Your task to perform on an android device: Empty the shopping cart on ebay.com. Add duracell triple a to the cart on ebay.com Image 0: 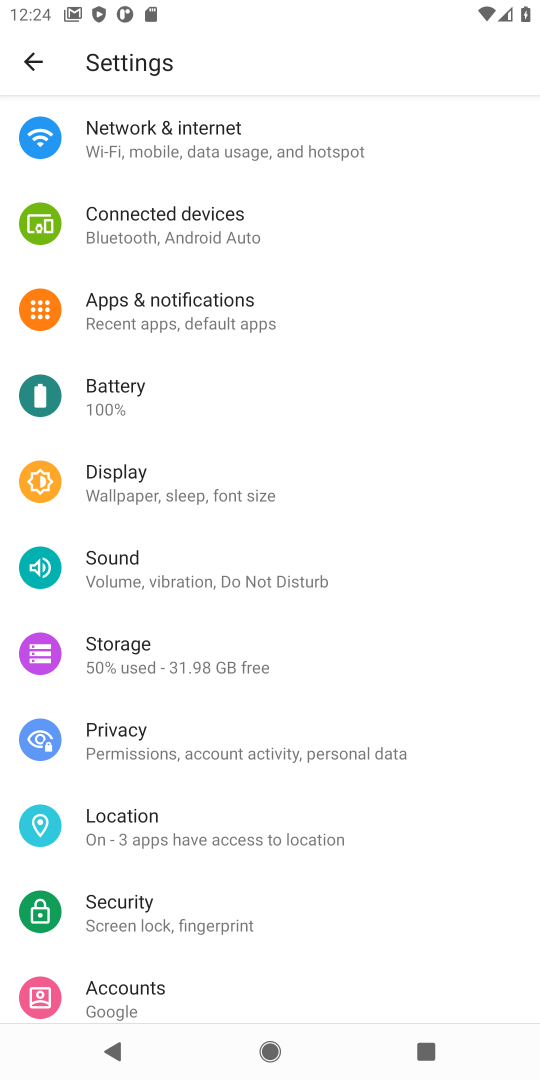
Step 0: press home button
Your task to perform on an android device: Empty the shopping cart on ebay.com. Add duracell triple a to the cart on ebay.com Image 1: 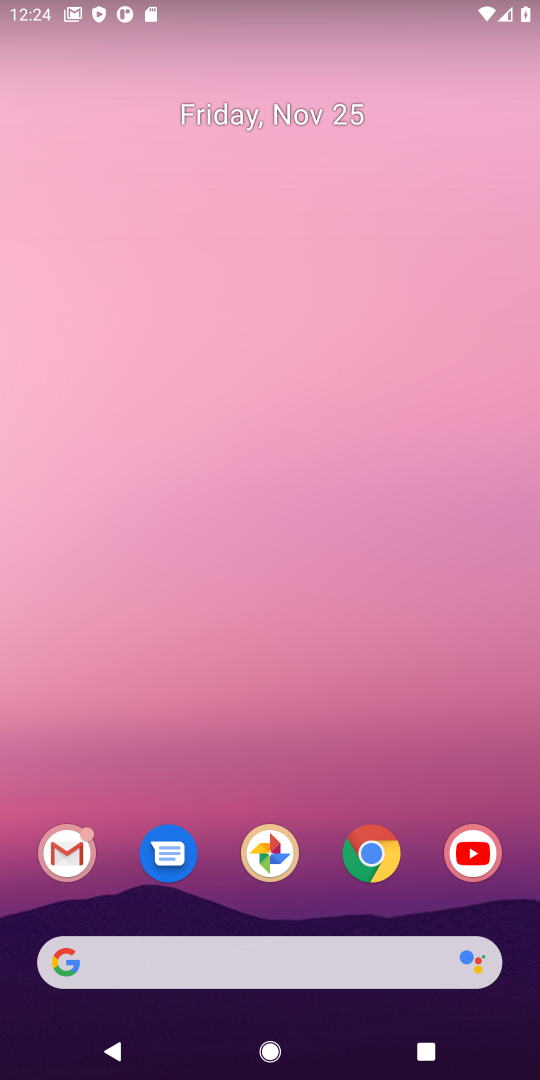
Step 1: click (211, 978)
Your task to perform on an android device: Empty the shopping cart on ebay.com. Add duracell triple a to the cart on ebay.com Image 2: 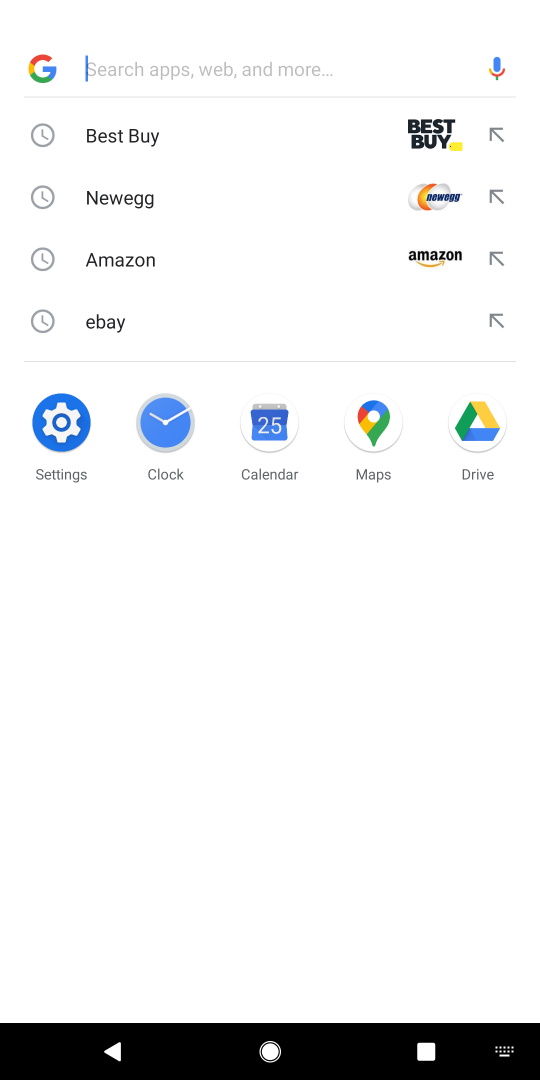
Step 2: click (209, 341)
Your task to perform on an android device: Empty the shopping cart on ebay.com. Add duracell triple a to the cart on ebay.com Image 3: 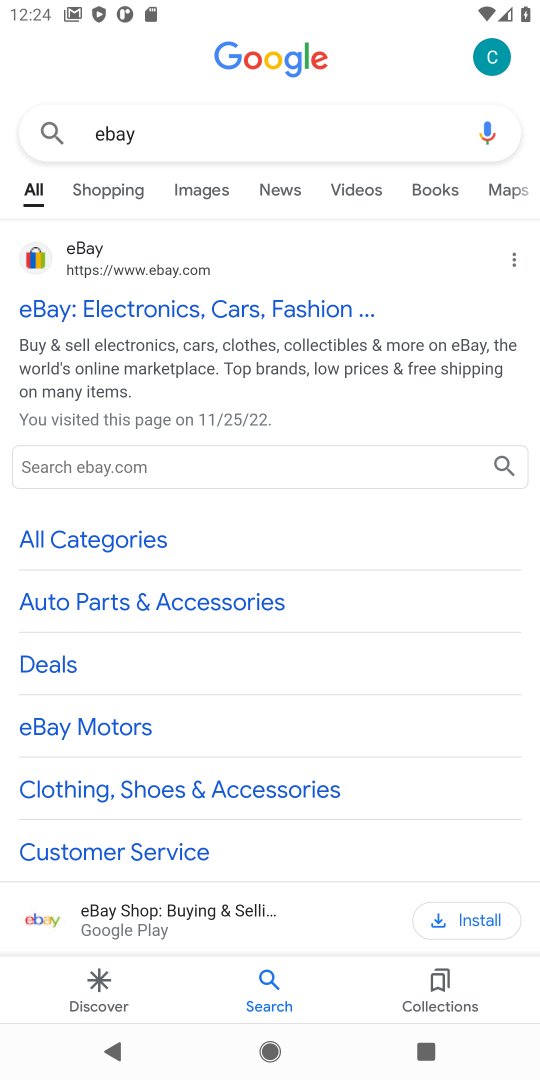
Step 3: click (196, 312)
Your task to perform on an android device: Empty the shopping cart on ebay.com. Add duracell triple a to the cart on ebay.com Image 4: 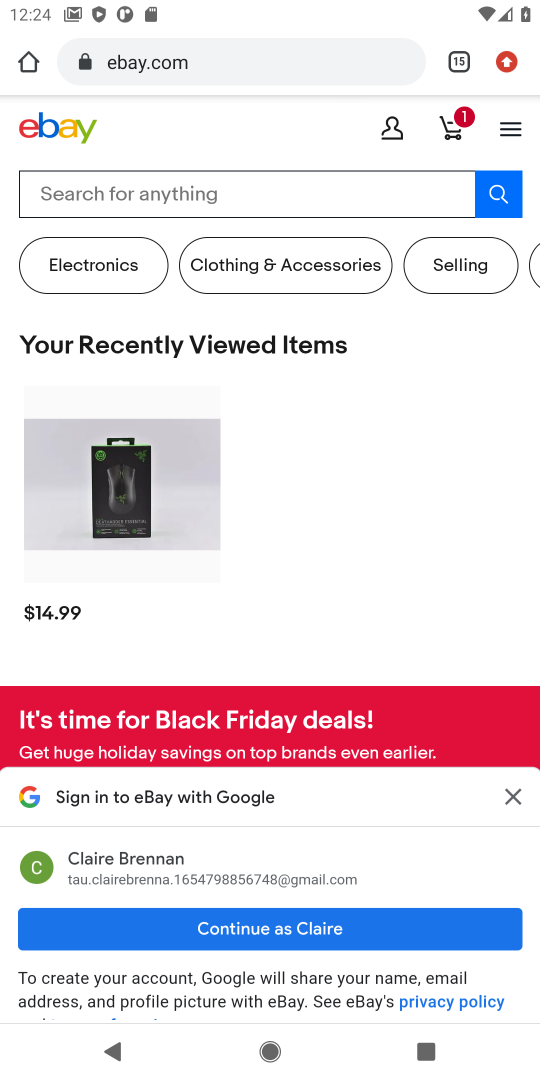
Step 4: click (178, 203)
Your task to perform on an android device: Empty the shopping cart on ebay.com. Add duracell triple a to the cart on ebay.com Image 5: 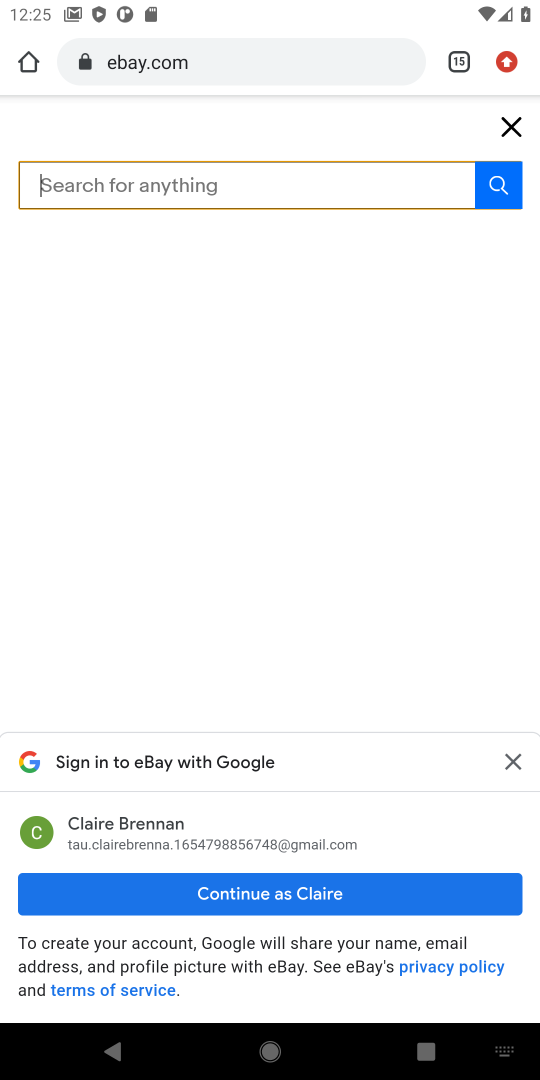
Step 5: type "duracell triple a"
Your task to perform on an android device: Empty the shopping cart on ebay.com. Add duracell triple a to the cart on ebay.com Image 6: 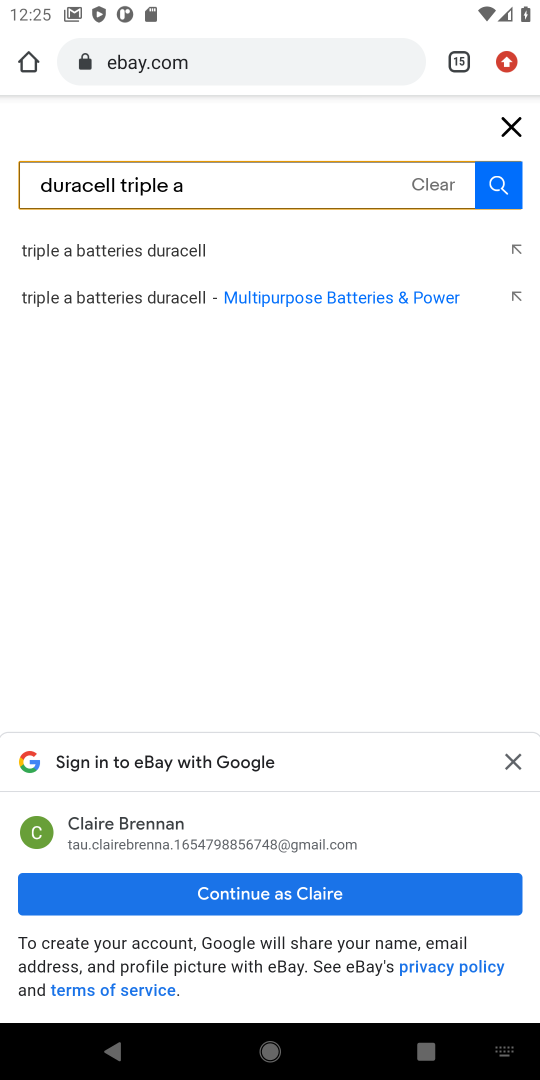
Step 6: click (506, 185)
Your task to perform on an android device: Empty the shopping cart on ebay.com. Add duracell triple a to the cart on ebay.com Image 7: 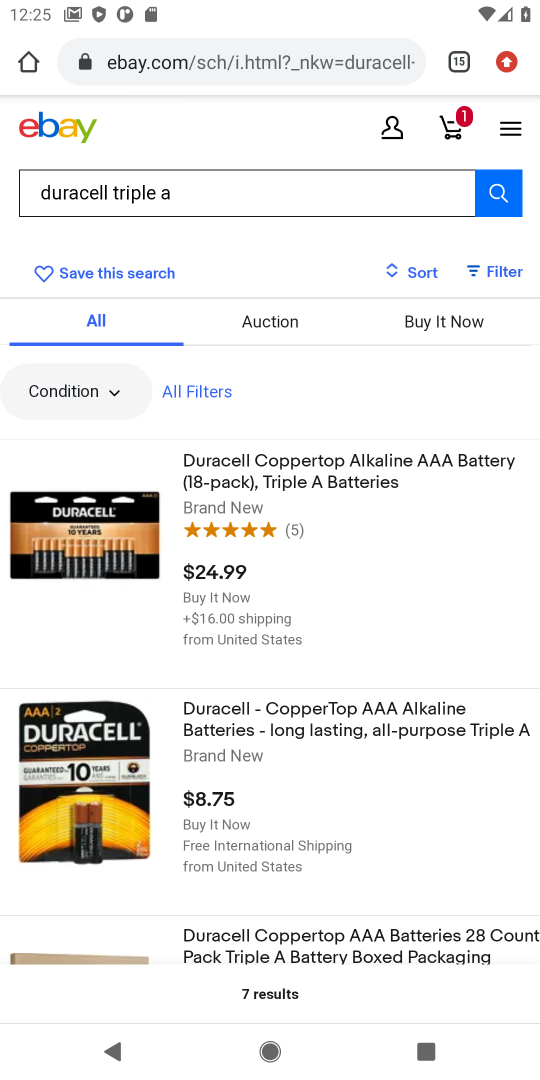
Step 7: click (327, 455)
Your task to perform on an android device: Empty the shopping cart on ebay.com. Add duracell triple a to the cart on ebay.com Image 8: 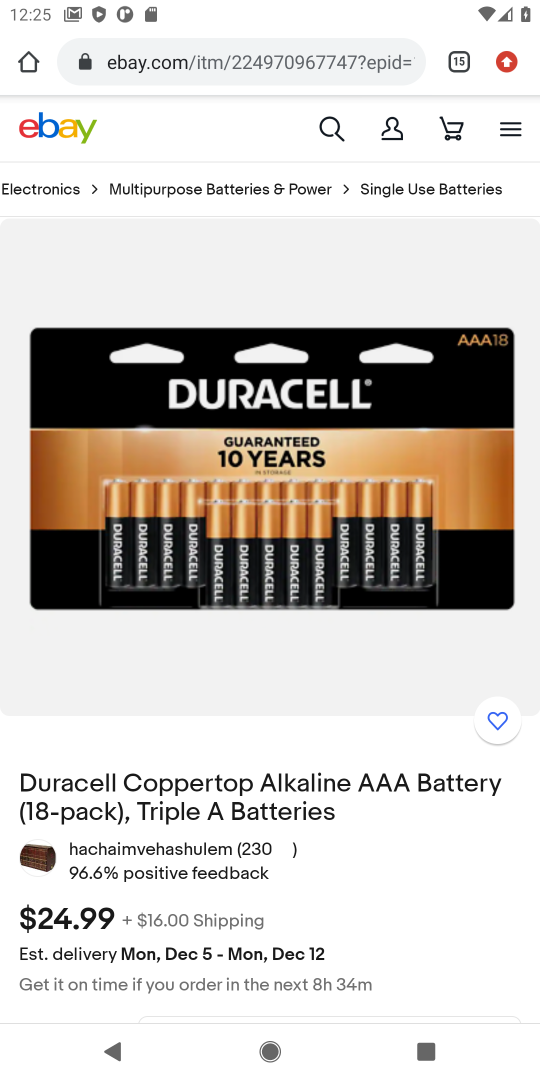
Step 8: drag from (247, 868) to (219, 481)
Your task to perform on an android device: Empty the shopping cart on ebay.com. Add duracell triple a to the cart on ebay.com Image 9: 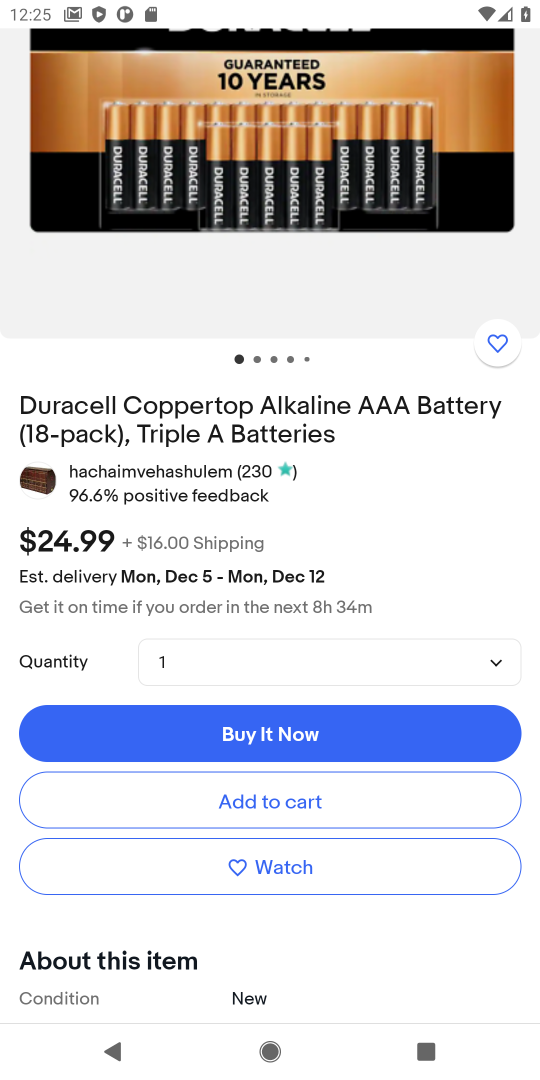
Step 9: click (296, 808)
Your task to perform on an android device: Empty the shopping cart on ebay.com. Add duracell triple a to the cart on ebay.com Image 10: 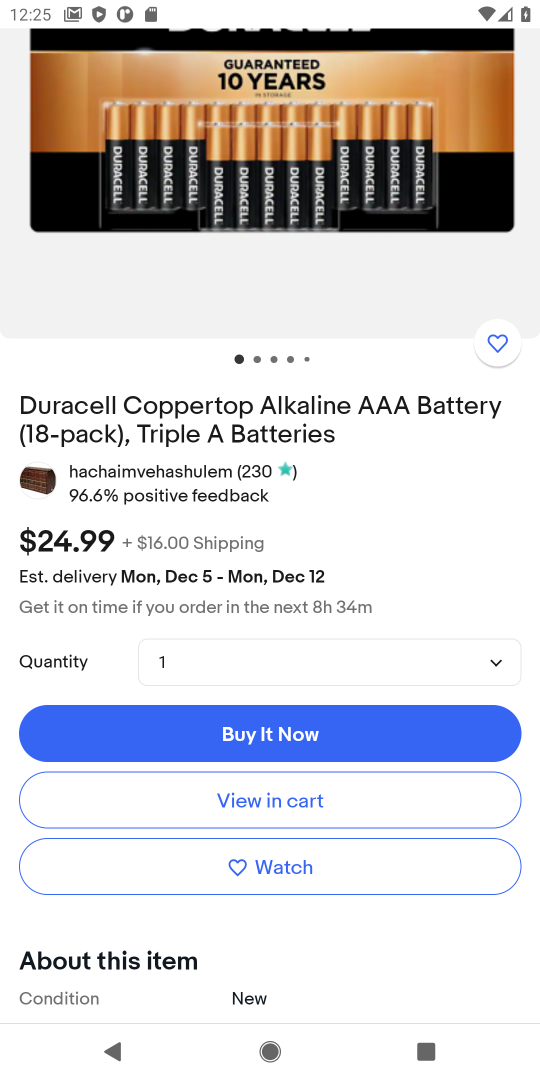
Step 10: task complete